Your task to perform on an android device: toggle notifications settings in the gmail app Image 0: 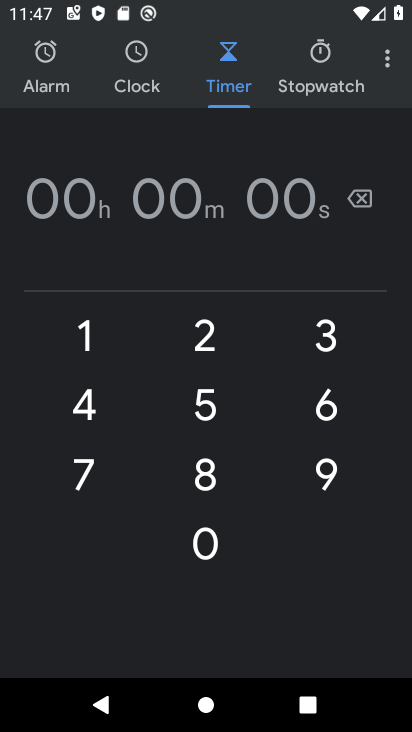
Step 0: press home button
Your task to perform on an android device: toggle notifications settings in the gmail app Image 1: 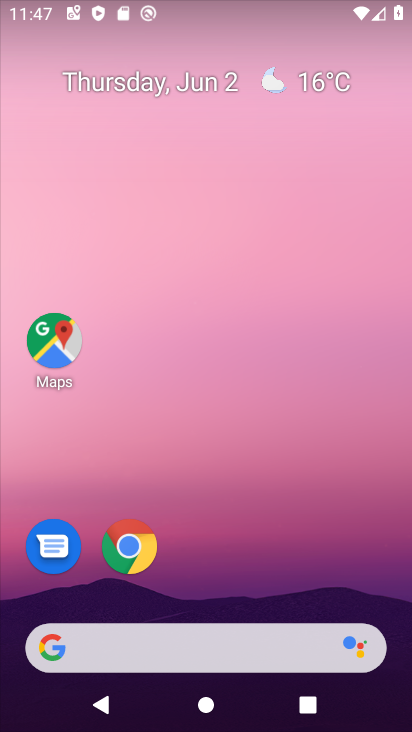
Step 1: drag from (235, 559) to (235, 21)
Your task to perform on an android device: toggle notifications settings in the gmail app Image 2: 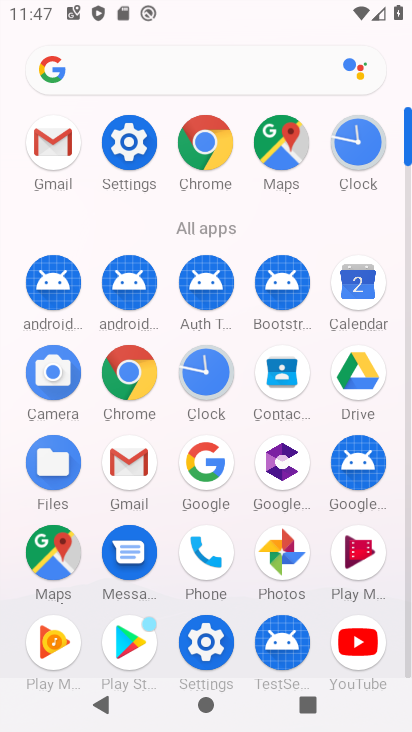
Step 2: click (49, 139)
Your task to perform on an android device: toggle notifications settings in the gmail app Image 3: 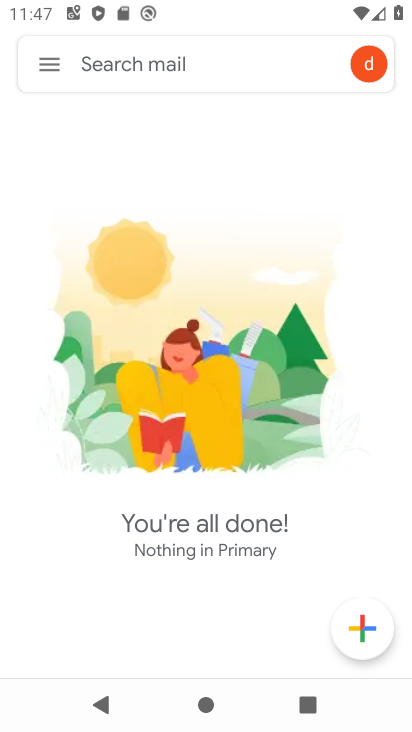
Step 3: click (49, 57)
Your task to perform on an android device: toggle notifications settings in the gmail app Image 4: 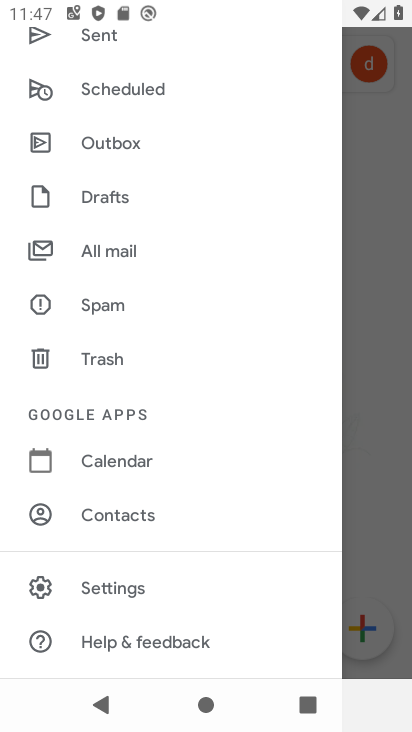
Step 4: click (121, 590)
Your task to perform on an android device: toggle notifications settings in the gmail app Image 5: 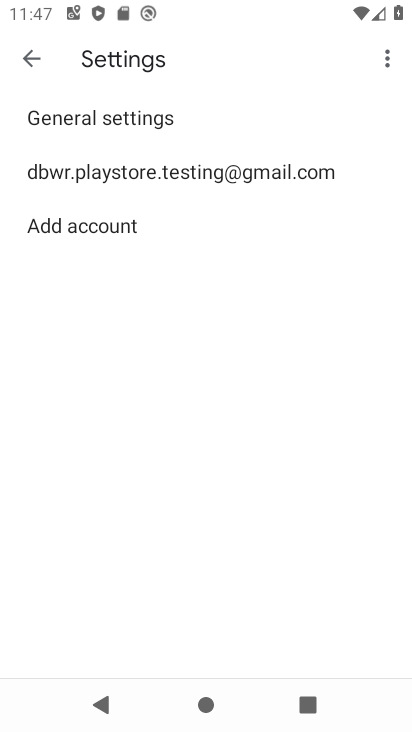
Step 5: click (114, 117)
Your task to perform on an android device: toggle notifications settings in the gmail app Image 6: 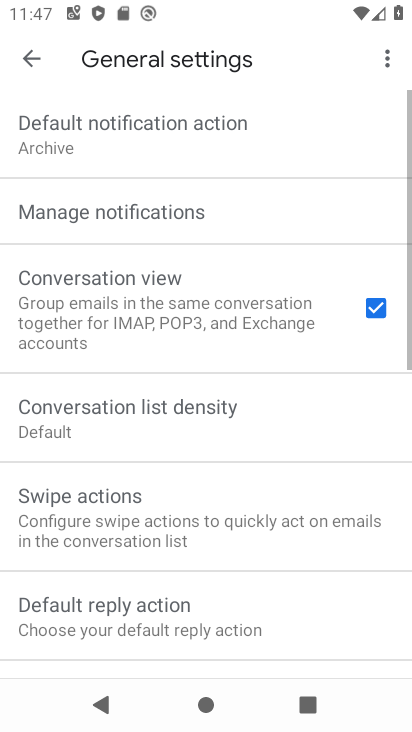
Step 6: click (114, 117)
Your task to perform on an android device: toggle notifications settings in the gmail app Image 7: 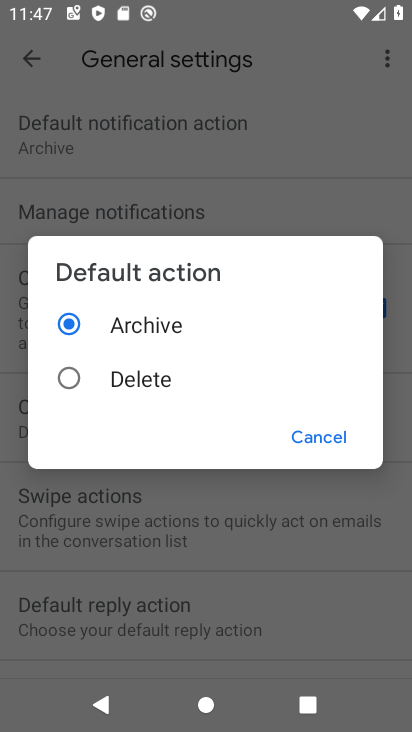
Step 7: click (308, 430)
Your task to perform on an android device: toggle notifications settings in the gmail app Image 8: 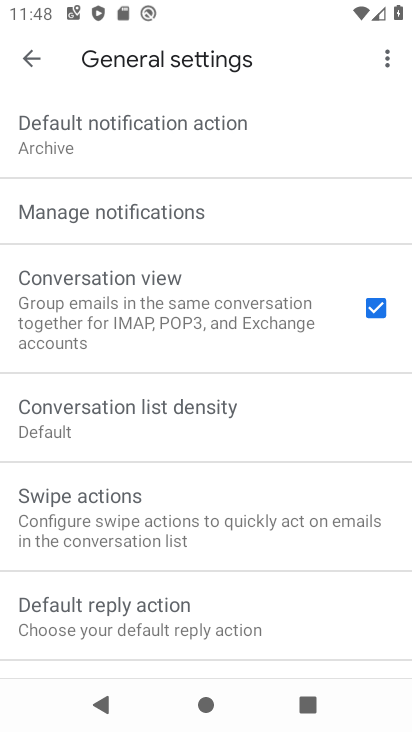
Step 8: click (123, 200)
Your task to perform on an android device: toggle notifications settings in the gmail app Image 9: 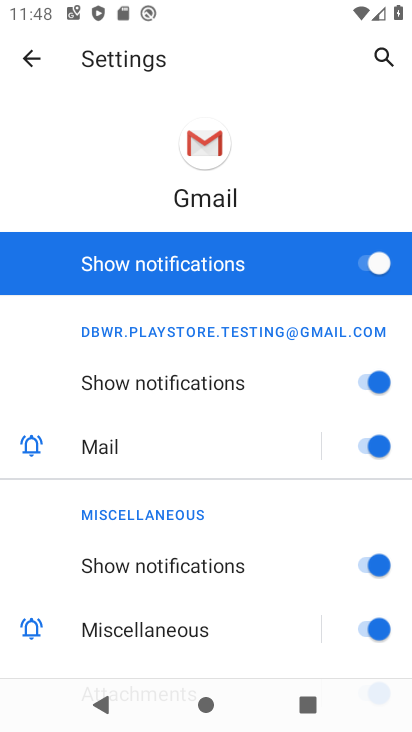
Step 9: click (370, 257)
Your task to perform on an android device: toggle notifications settings in the gmail app Image 10: 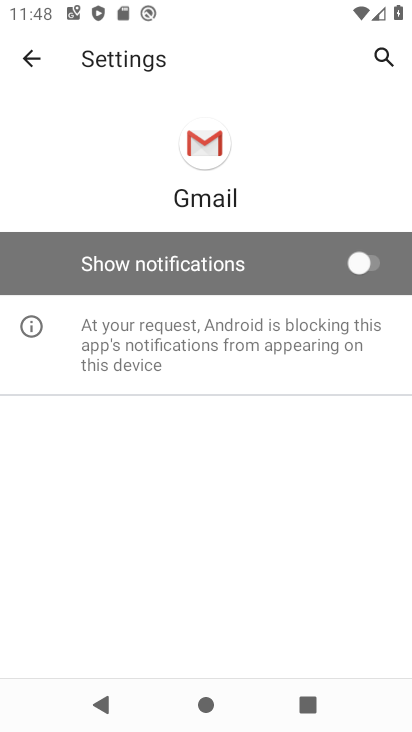
Step 10: task complete